Your task to perform on an android device: Open the map Image 0: 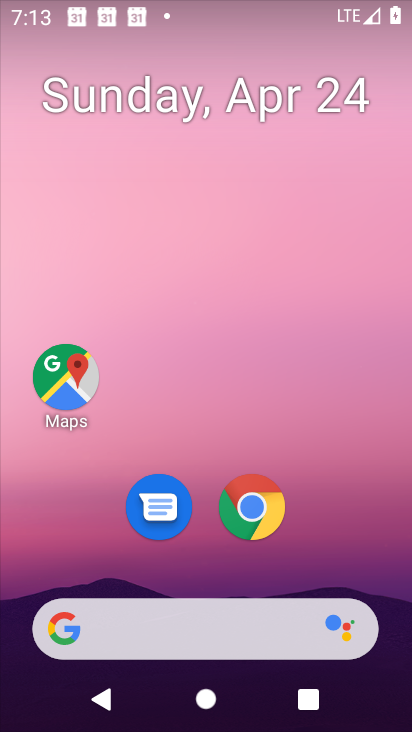
Step 0: click (406, 27)
Your task to perform on an android device: Open the map Image 1: 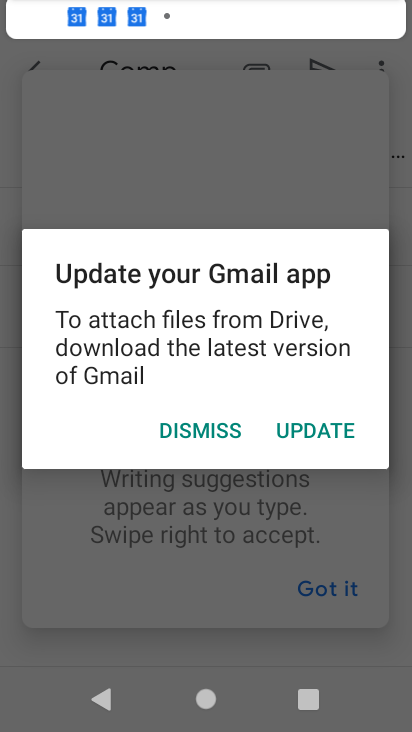
Step 1: press home button
Your task to perform on an android device: Open the map Image 2: 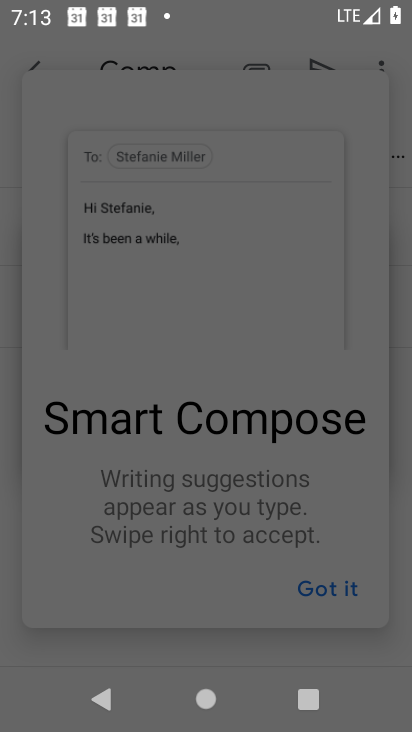
Step 2: drag from (406, 27) to (407, 331)
Your task to perform on an android device: Open the map Image 3: 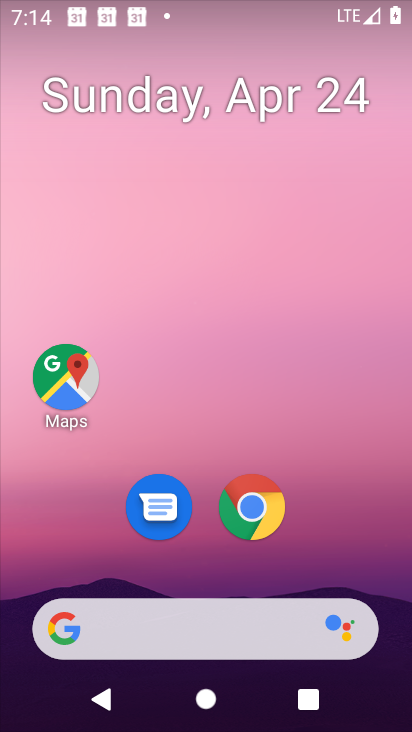
Step 3: click (80, 386)
Your task to perform on an android device: Open the map Image 4: 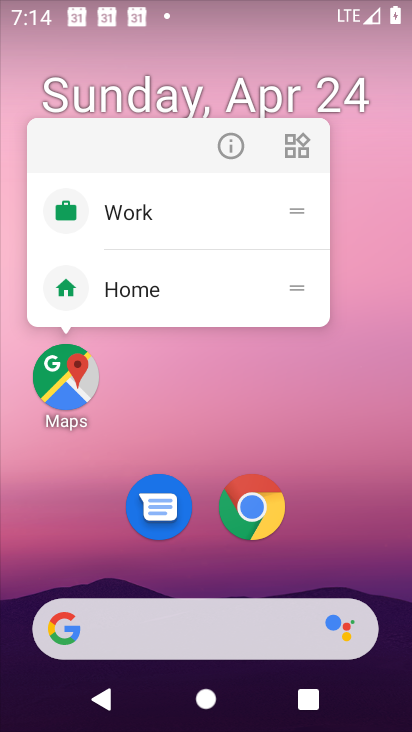
Step 4: click (80, 386)
Your task to perform on an android device: Open the map Image 5: 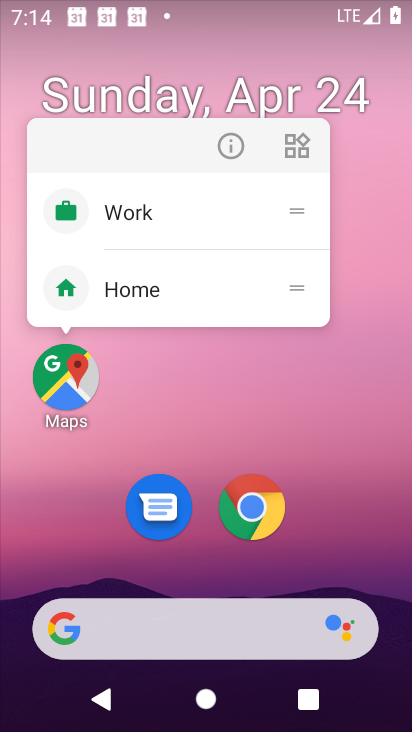
Step 5: click (80, 386)
Your task to perform on an android device: Open the map Image 6: 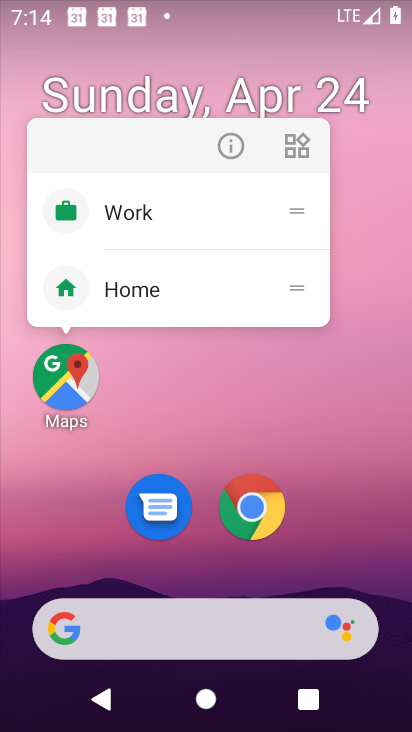
Step 6: click (80, 384)
Your task to perform on an android device: Open the map Image 7: 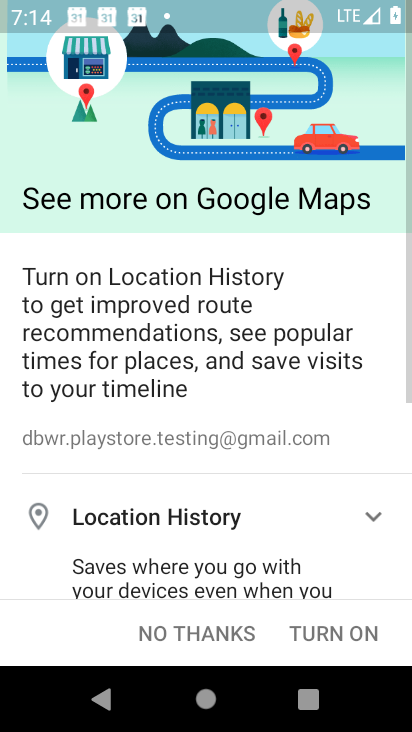
Step 7: task complete